Your task to perform on an android device: Open Yahoo.com Image 0: 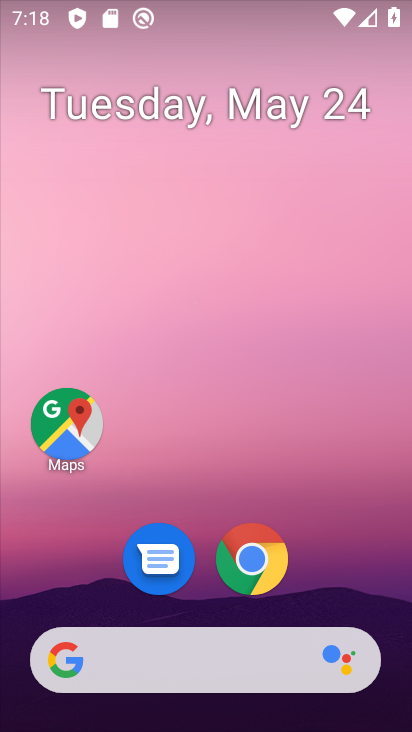
Step 0: drag from (272, 641) to (293, 161)
Your task to perform on an android device: Open Yahoo.com Image 1: 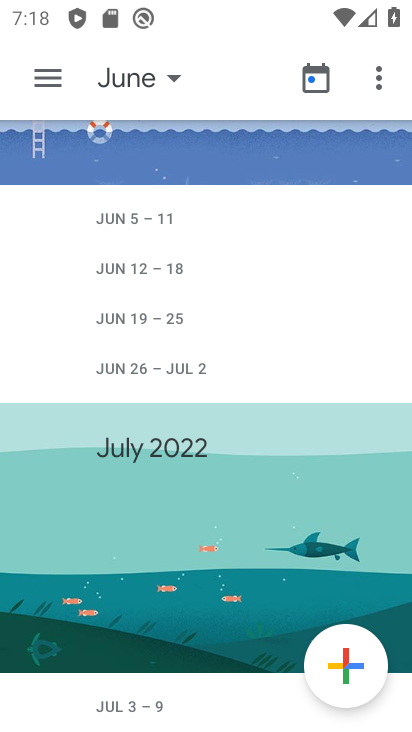
Step 1: press home button
Your task to perform on an android device: Open Yahoo.com Image 2: 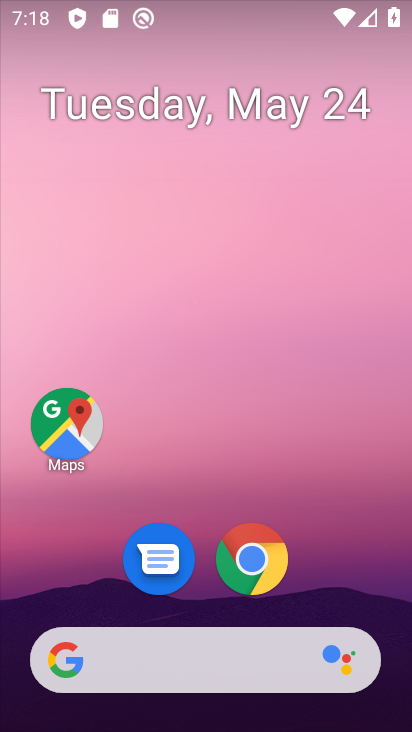
Step 2: click (246, 567)
Your task to perform on an android device: Open Yahoo.com Image 3: 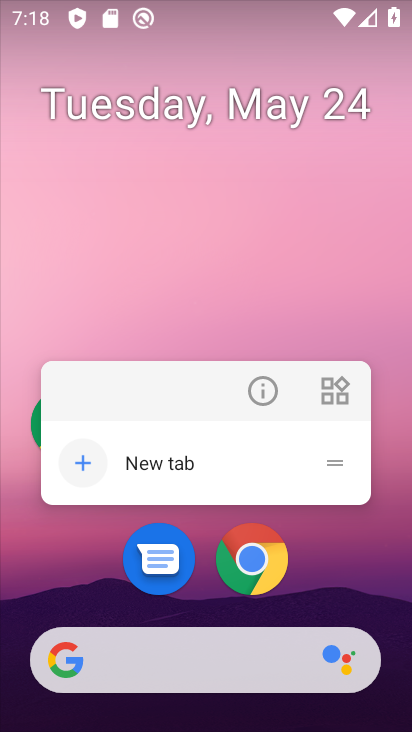
Step 3: click (246, 567)
Your task to perform on an android device: Open Yahoo.com Image 4: 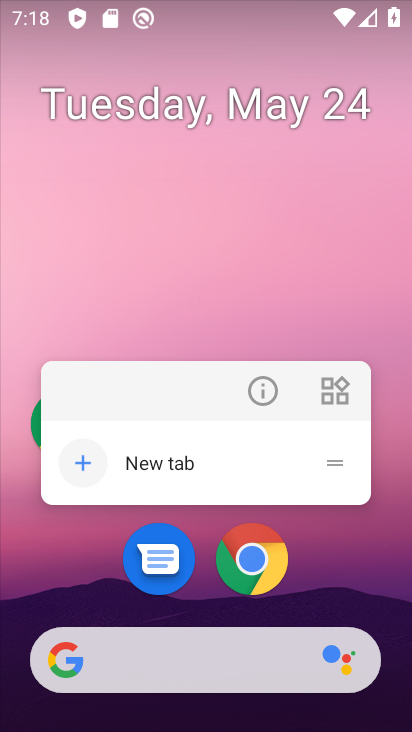
Step 4: click (261, 579)
Your task to perform on an android device: Open Yahoo.com Image 5: 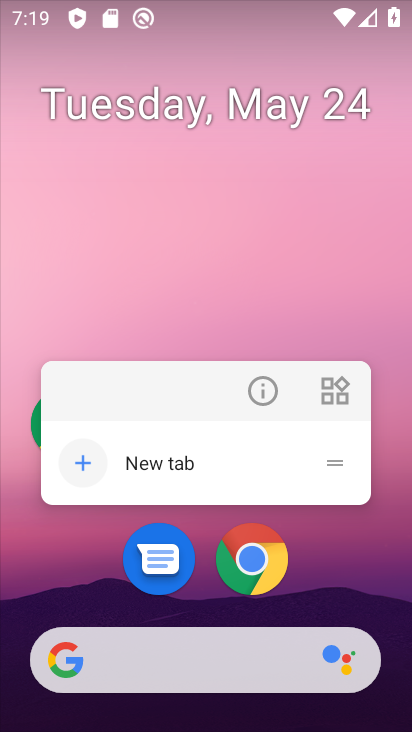
Step 5: click (261, 571)
Your task to perform on an android device: Open Yahoo.com Image 6: 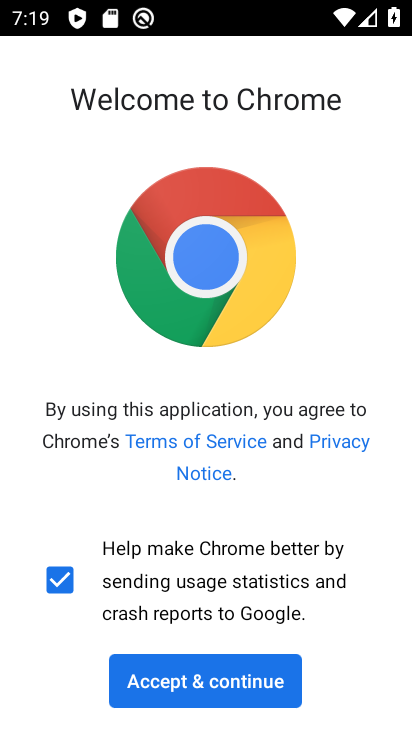
Step 6: click (227, 673)
Your task to perform on an android device: Open Yahoo.com Image 7: 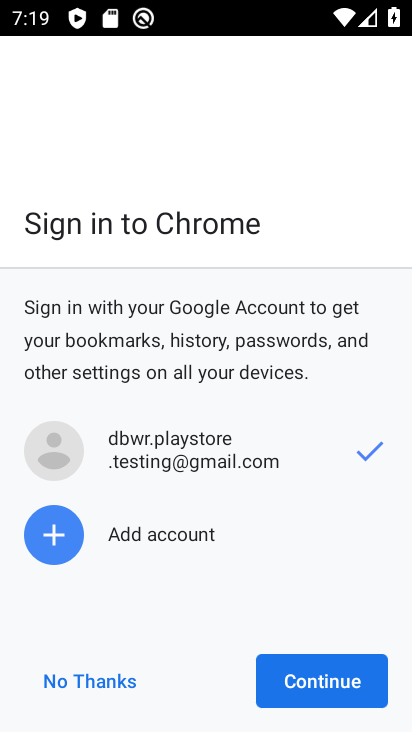
Step 7: click (302, 685)
Your task to perform on an android device: Open Yahoo.com Image 8: 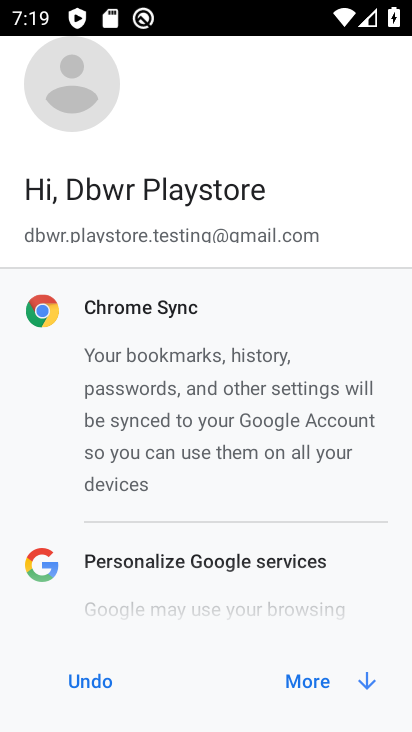
Step 8: click (306, 683)
Your task to perform on an android device: Open Yahoo.com Image 9: 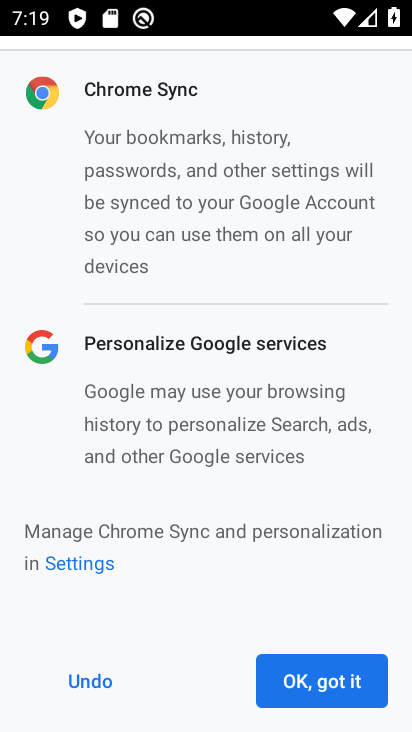
Step 9: click (307, 682)
Your task to perform on an android device: Open Yahoo.com Image 10: 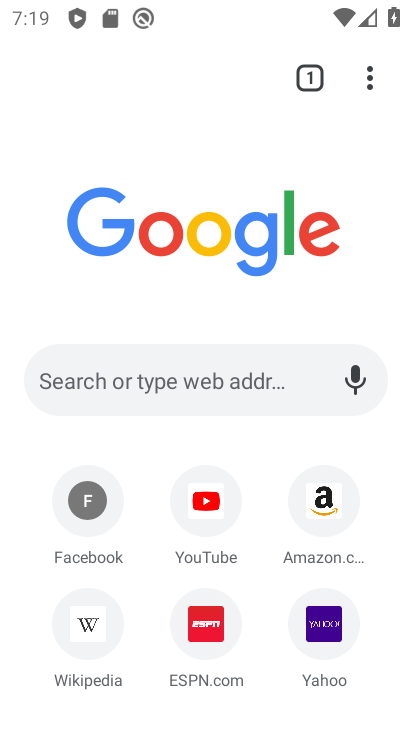
Step 10: click (332, 622)
Your task to perform on an android device: Open Yahoo.com Image 11: 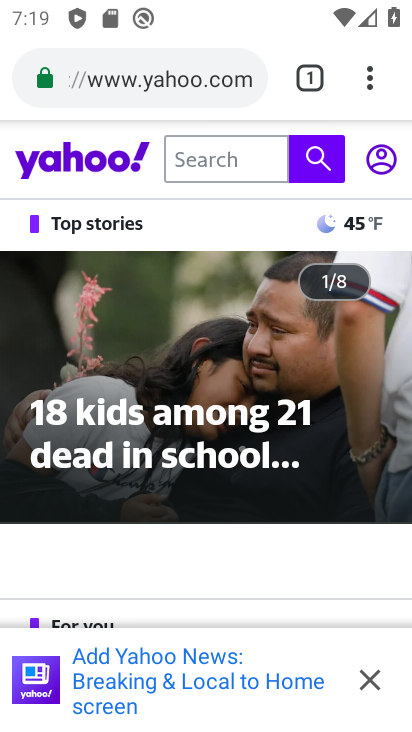
Step 11: task complete